Your task to perform on an android device: turn on javascript in the chrome app Image 0: 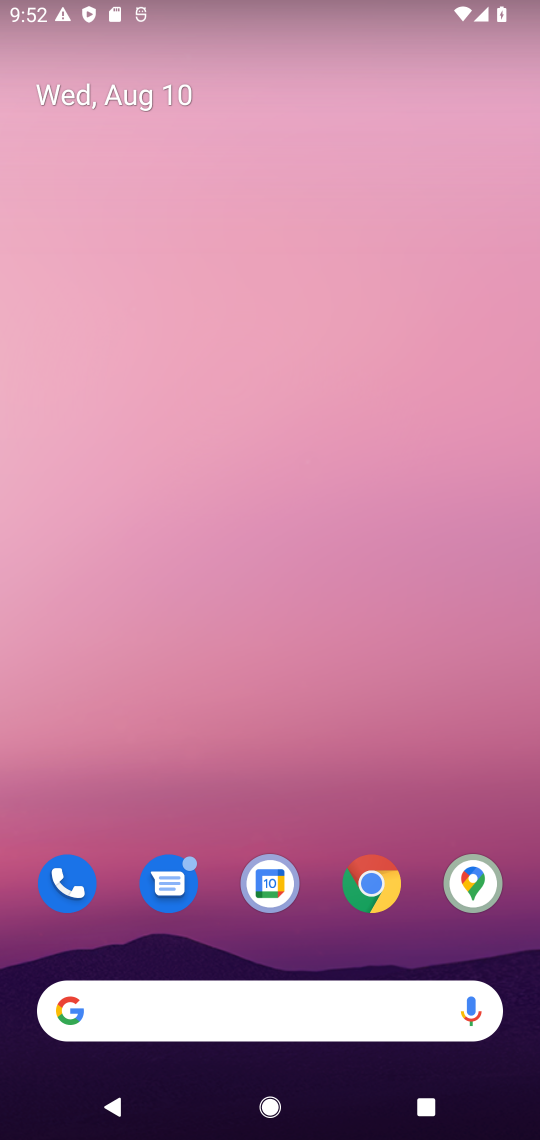
Step 0: click (361, 883)
Your task to perform on an android device: turn on javascript in the chrome app Image 1: 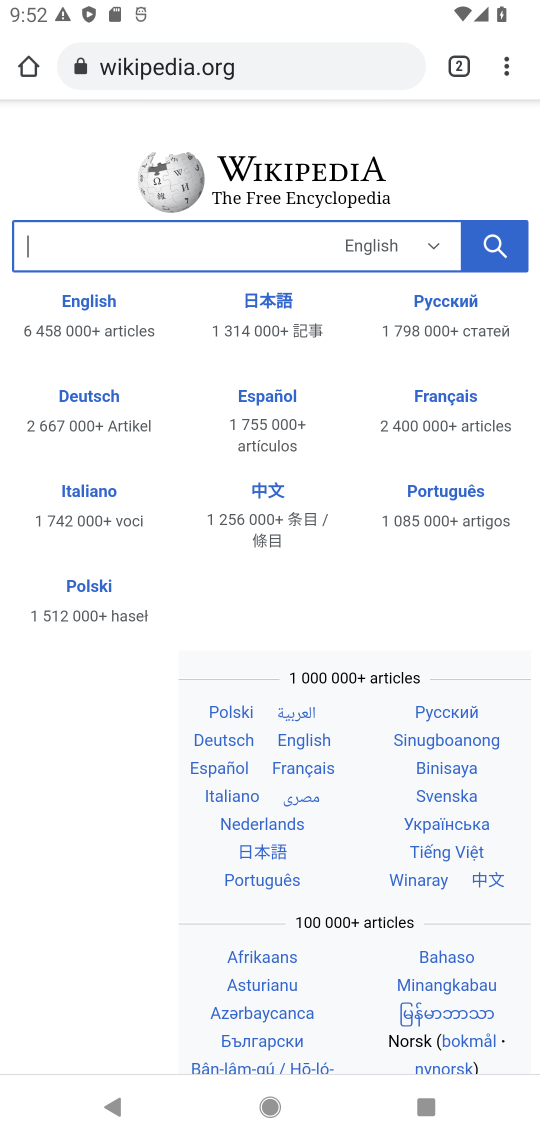
Step 1: click (380, 58)
Your task to perform on an android device: turn on javascript in the chrome app Image 2: 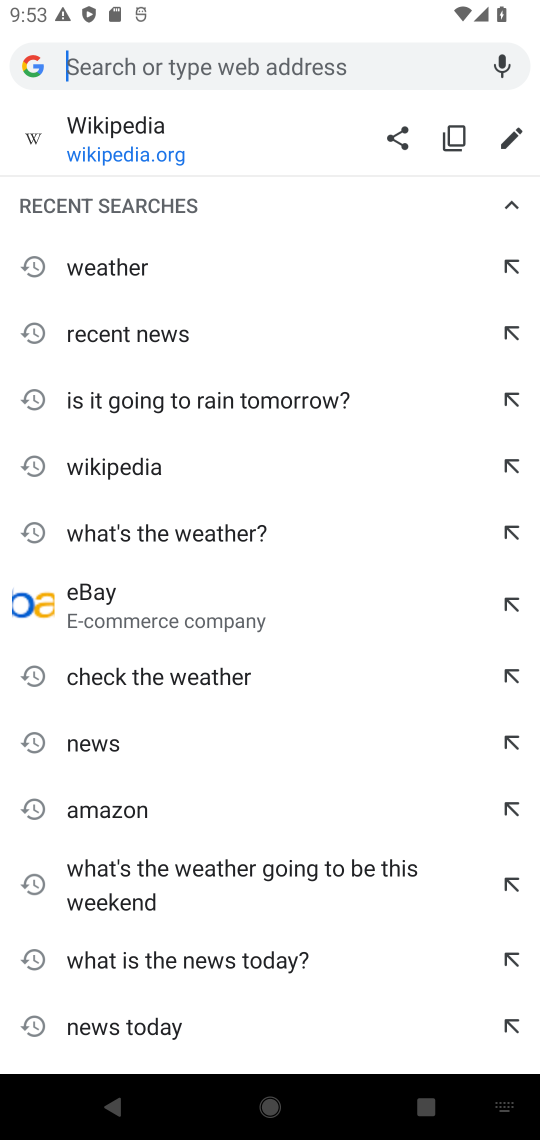
Step 2: type "Wikipedia"
Your task to perform on an android device: turn on javascript in the chrome app Image 3: 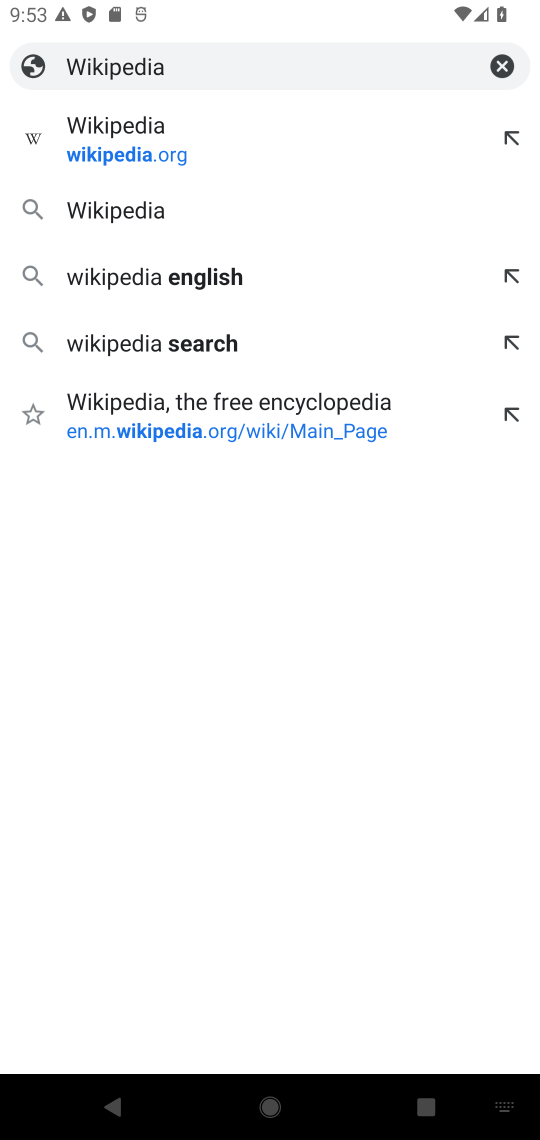
Step 3: click (492, 72)
Your task to perform on an android device: turn on javascript in the chrome app Image 4: 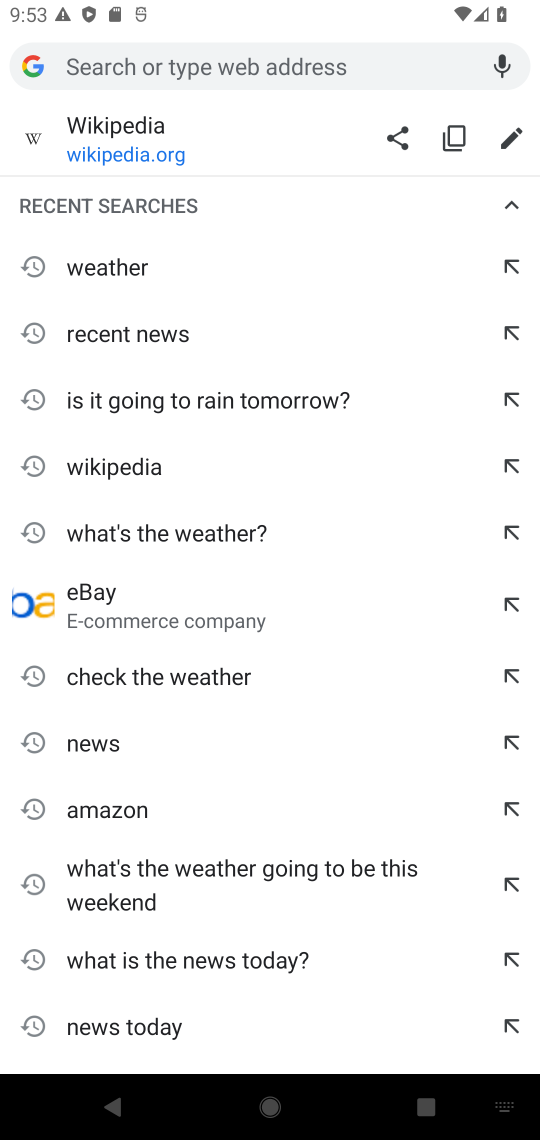
Step 4: type "javascript"
Your task to perform on an android device: turn on javascript in the chrome app Image 5: 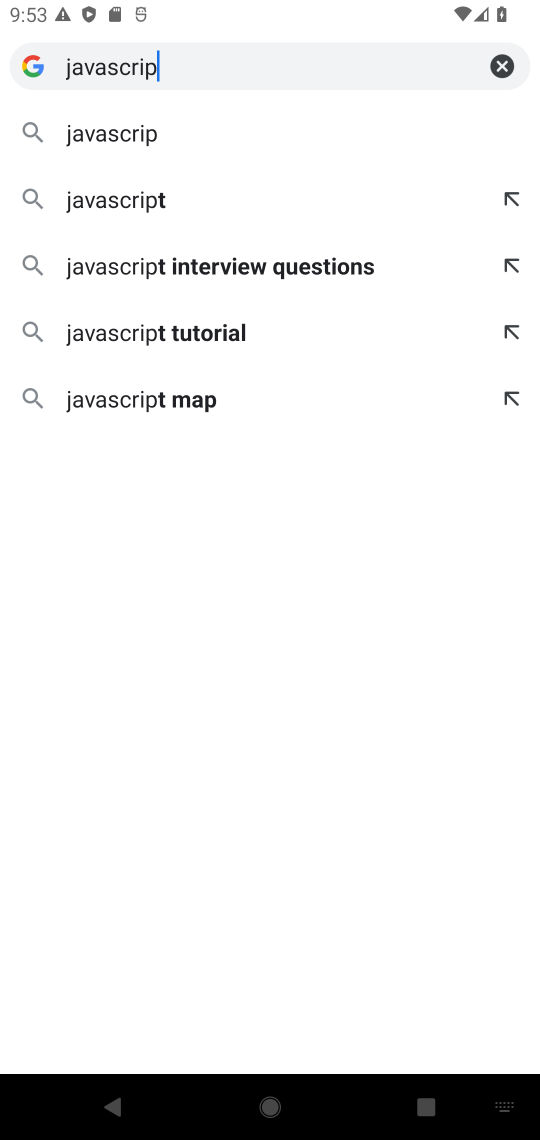
Step 5: type ""
Your task to perform on an android device: turn on javascript in the chrome app Image 6: 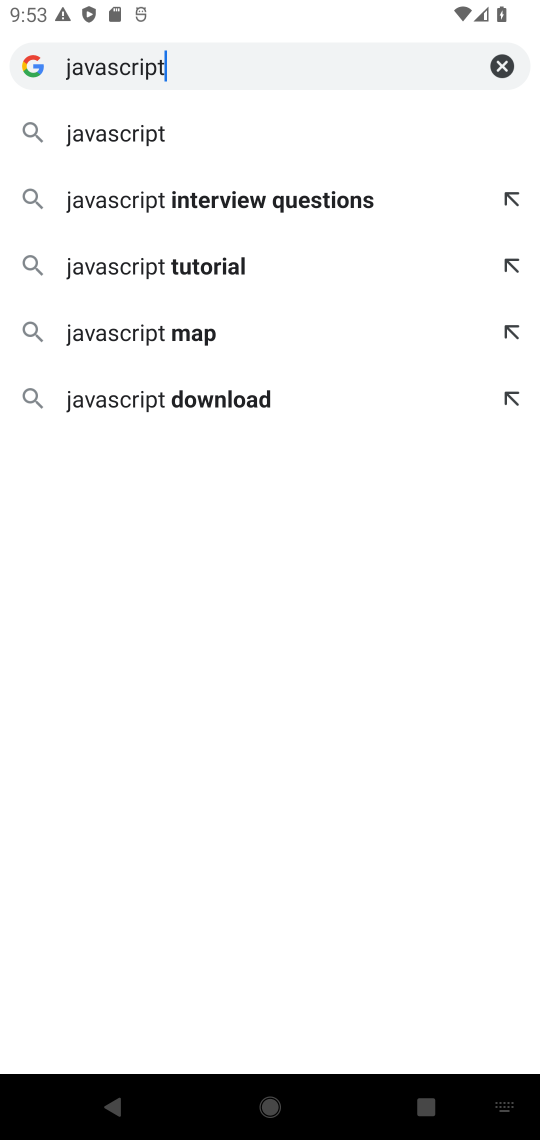
Step 6: click (95, 133)
Your task to perform on an android device: turn on javascript in the chrome app Image 7: 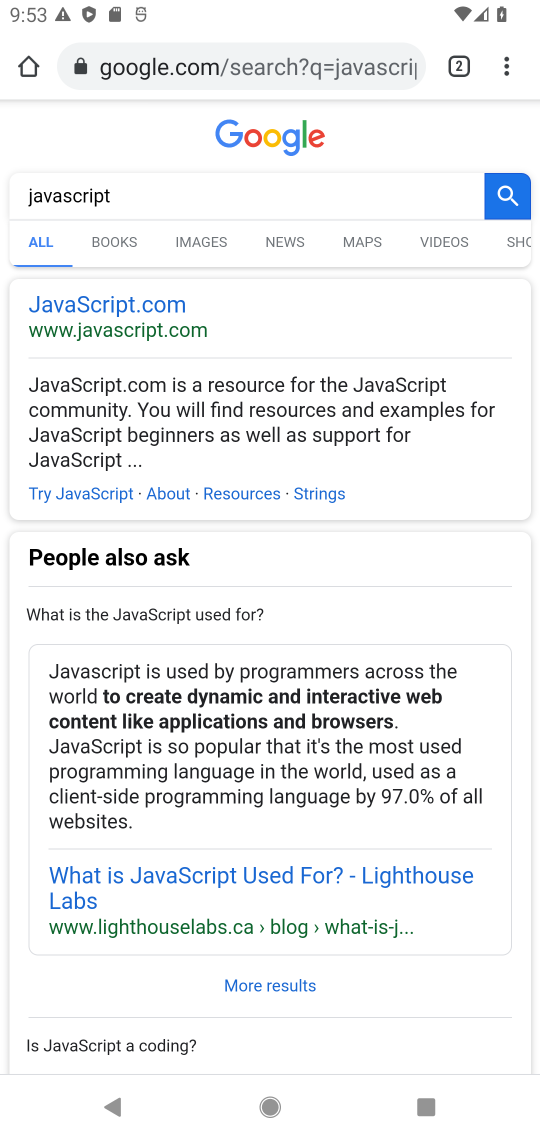
Step 7: drag from (493, 68) to (311, 880)
Your task to perform on an android device: turn on javascript in the chrome app Image 8: 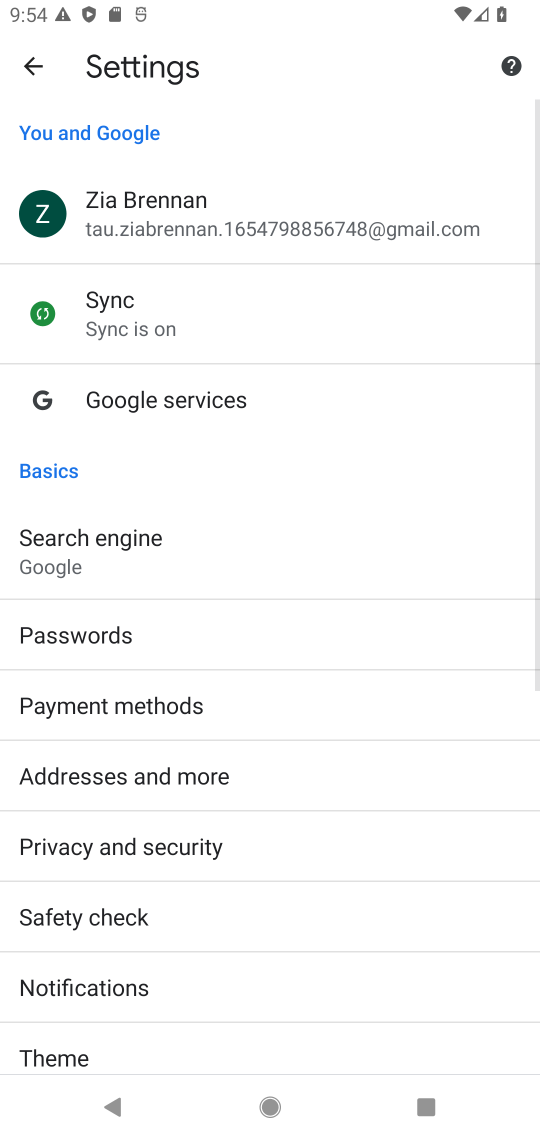
Step 8: drag from (115, 950) to (105, 57)
Your task to perform on an android device: turn on javascript in the chrome app Image 9: 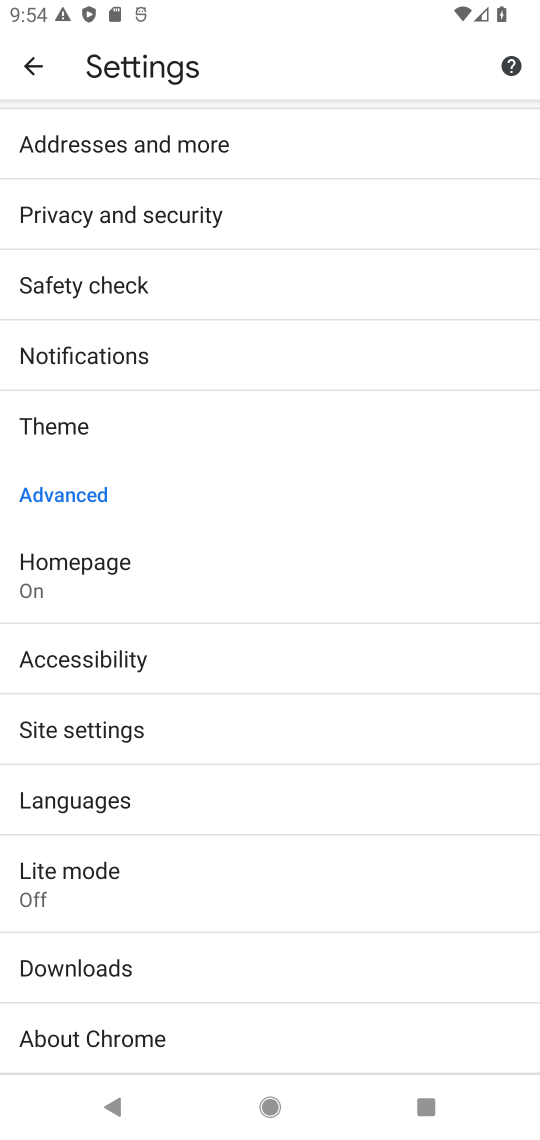
Step 9: click (46, 732)
Your task to perform on an android device: turn on javascript in the chrome app Image 10: 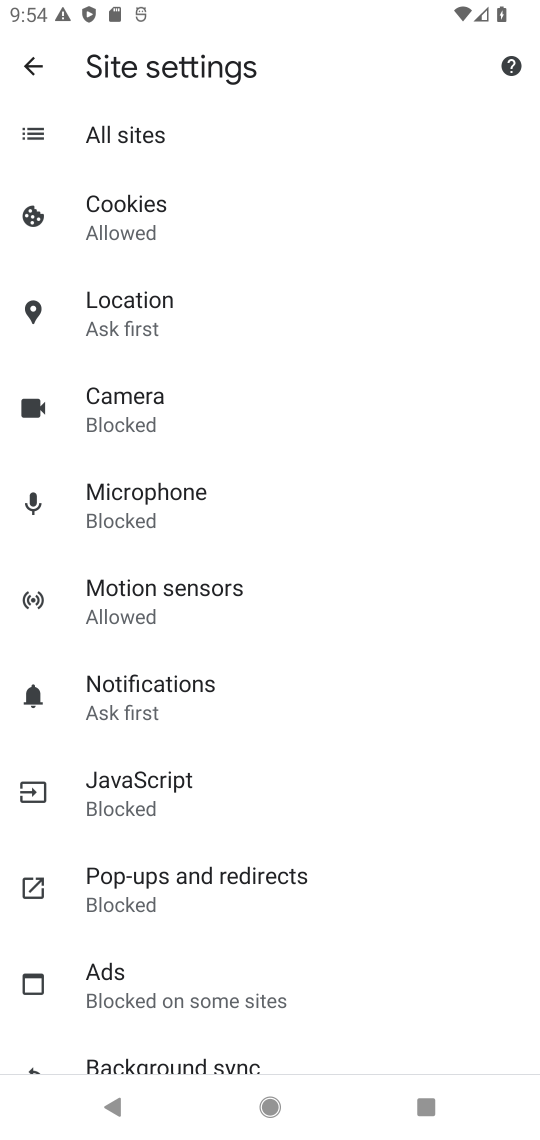
Step 10: click (101, 792)
Your task to perform on an android device: turn on javascript in the chrome app Image 11: 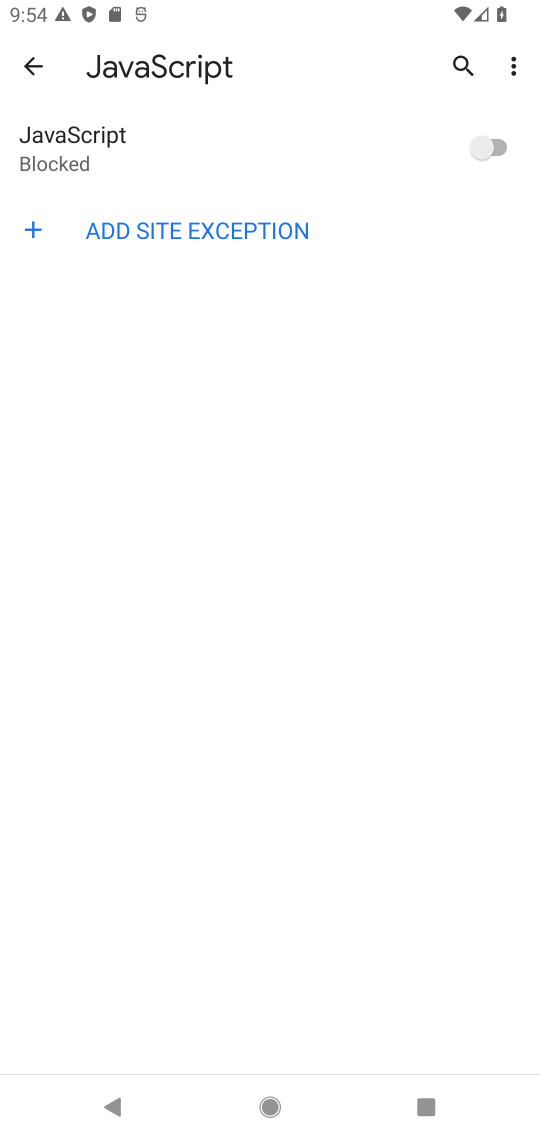
Step 11: click (295, 144)
Your task to perform on an android device: turn on javascript in the chrome app Image 12: 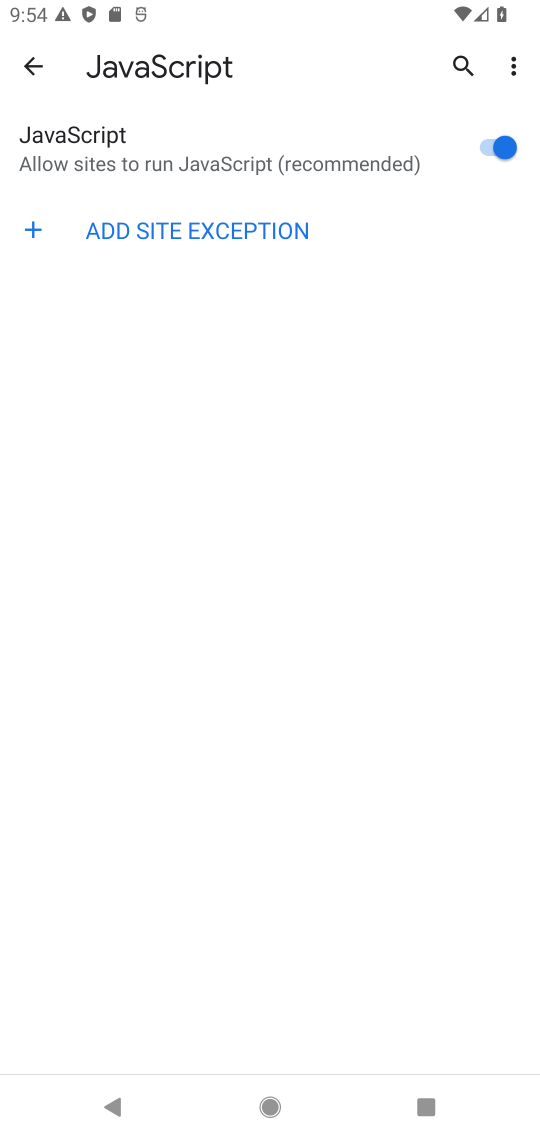
Step 12: task complete